Your task to perform on an android device: turn off smart reply in the gmail app Image 0: 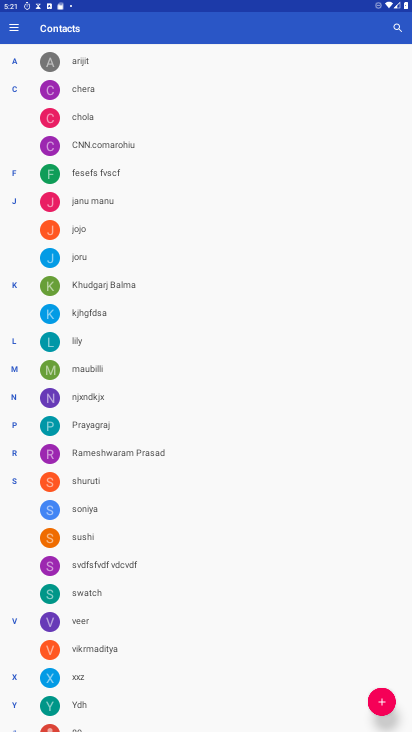
Step 0: press home button
Your task to perform on an android device: turn off smart reply in the gmail app Image 1: 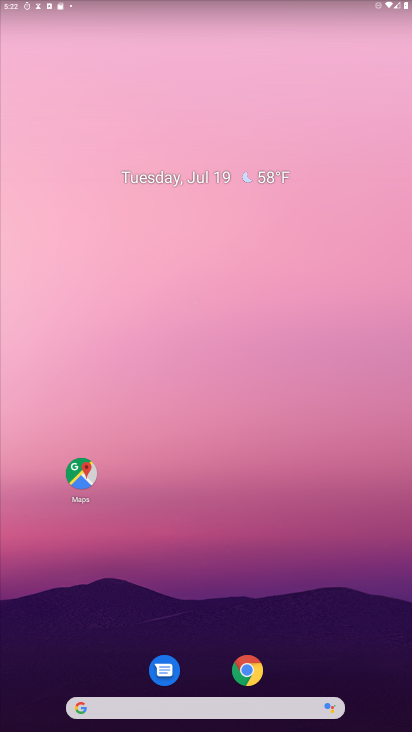
Step 1: drag from (237, 694) to (364, 52)
Your task to perform on an android device: turn off smart reply in the gmail app Image 2: 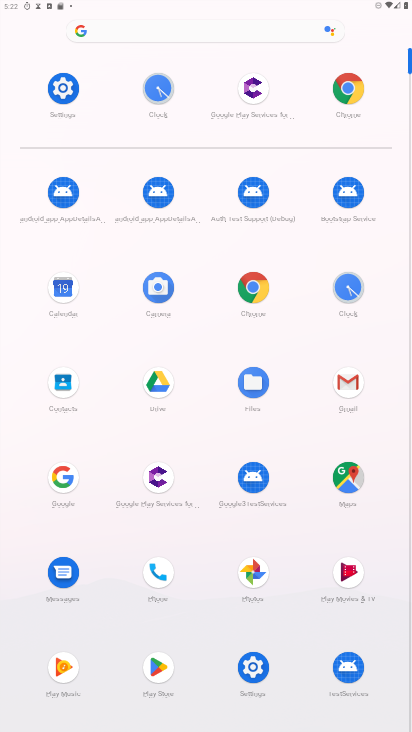
Step 2: click (355, 371)
Your task to perform on an android device: turn off smart reply in the gmail app Image 3: 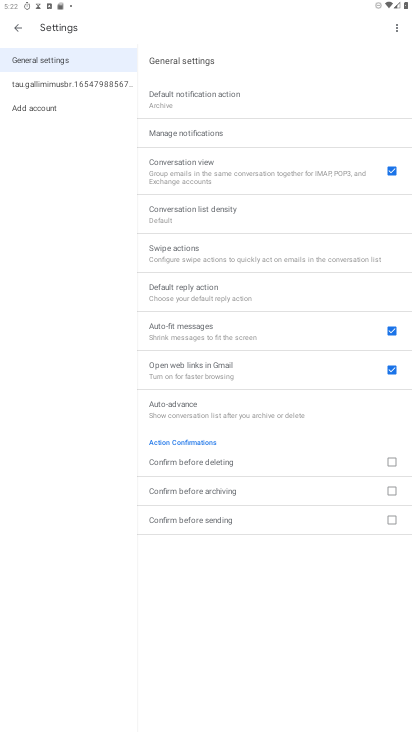
Step 3: click (105, 76)
Your task to perform on an android device: turn off smart reply in the gmail app Image 4: 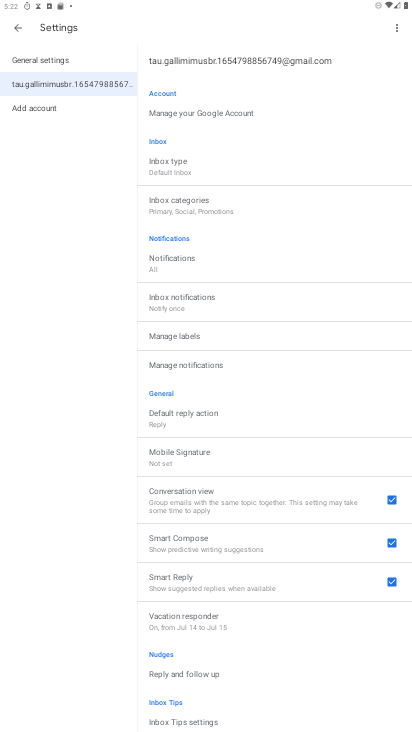
Step 4: click (388, 577)
Your task to perform on an android device: turn off smart reply in the gmail app Image 5: 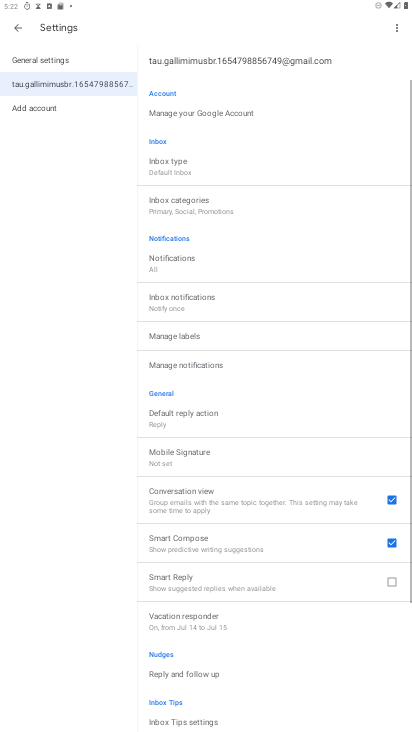
Step 5: task complete